Your task to perform on an android device: turn off airplane mode Image 0: 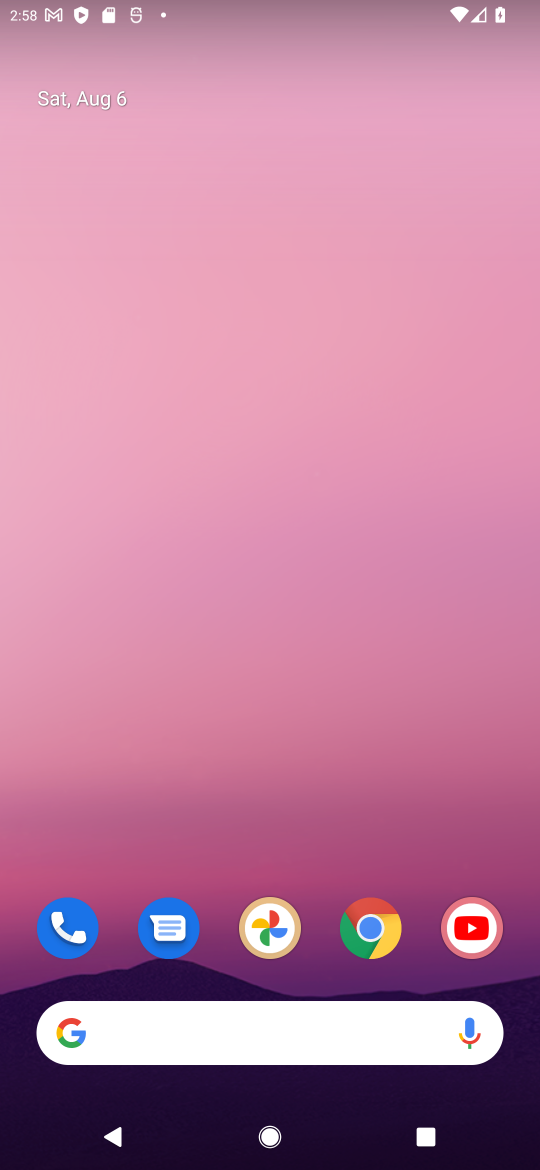
Step 0: drag from (216, 941) to (17, 137)
Your task to perform on an android device: turn off airplane mode Image 1: 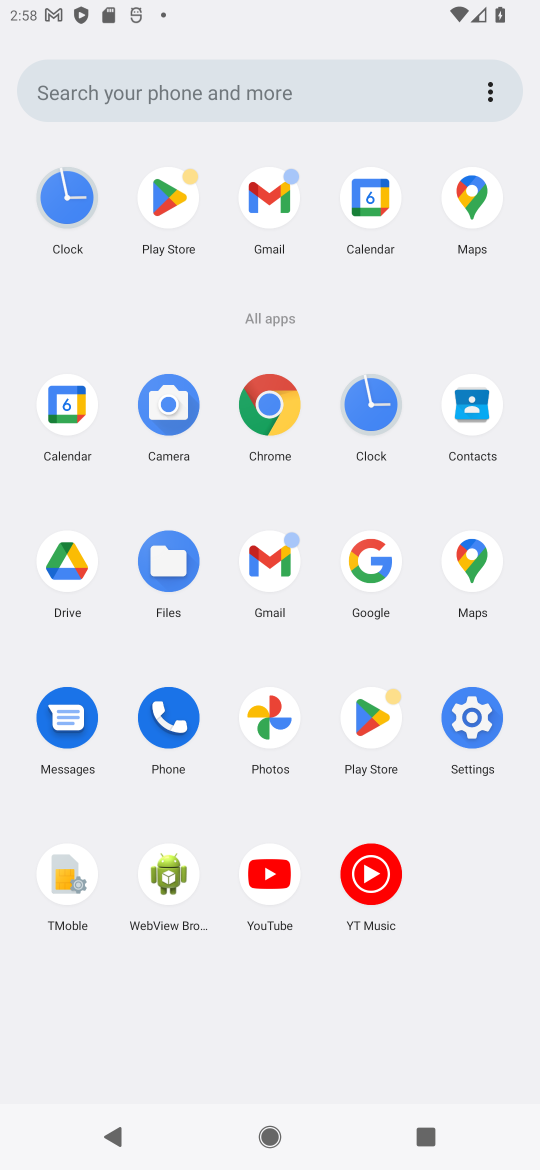
Step 1: click (481, 703)
Your task to perform on an android device: turn off airplane mode Image 2: 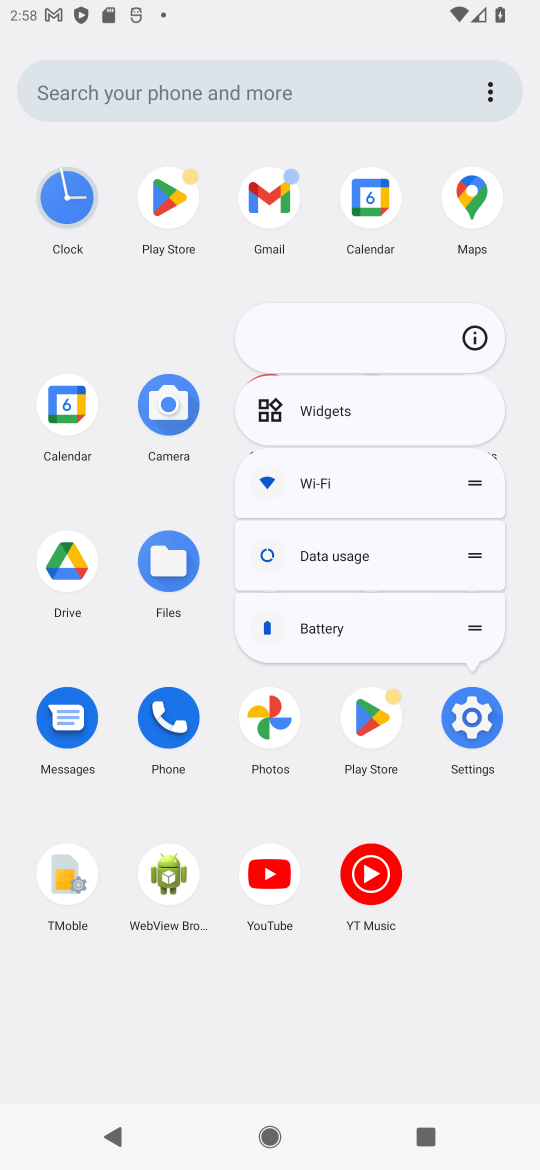
Step 2: click (478, 343)
Your task to perform on an android device: turn off airplane mode Image 3: 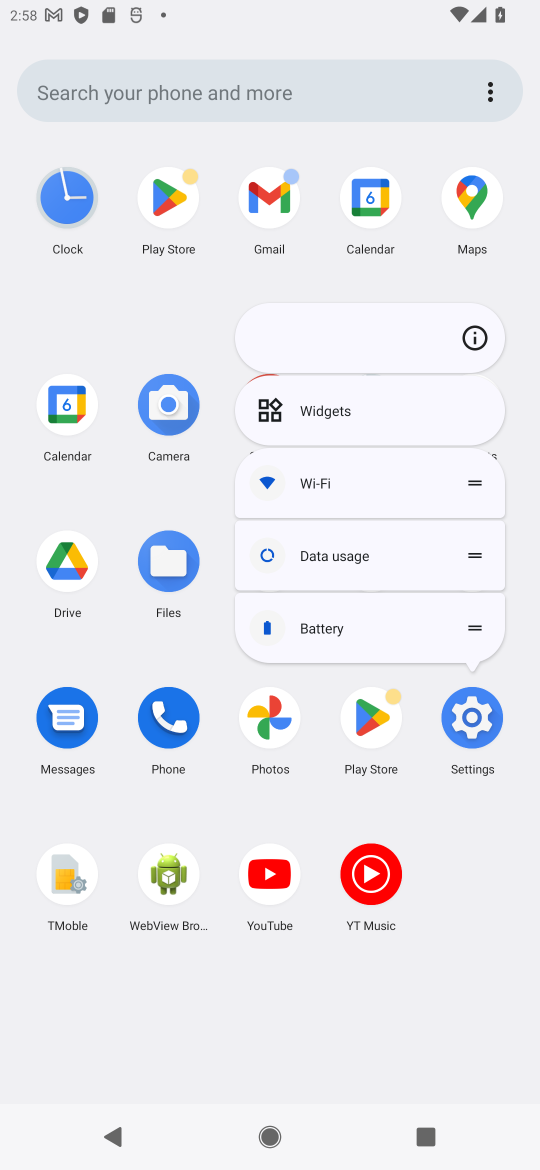
Step 3: click (482, 334)
Your task to perform on an android device: turn off airplane mode Image 4: 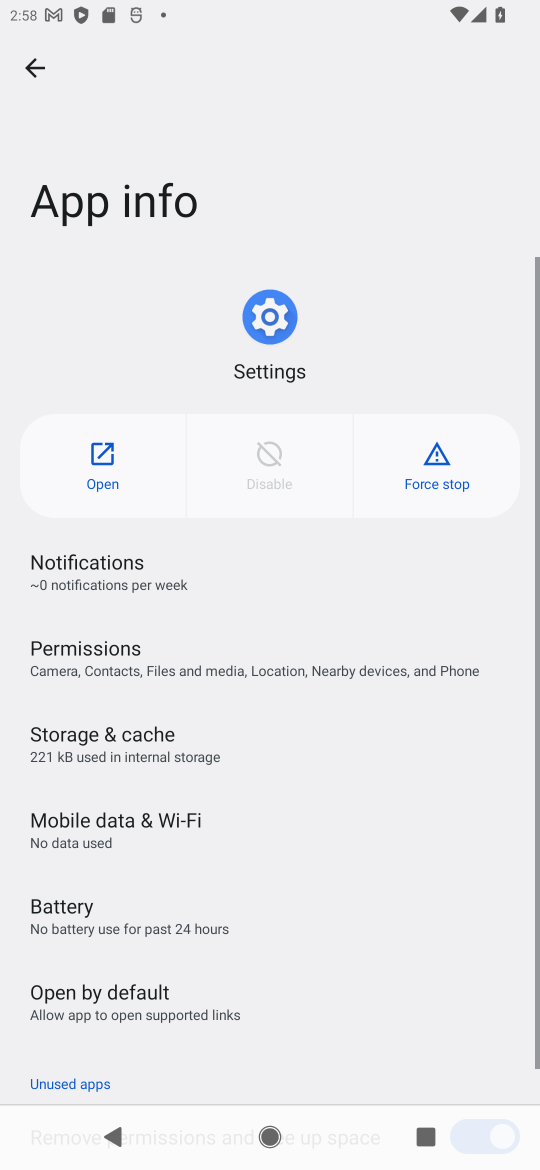
Step 4: click (91, 467)
Your task to perform on an android device: turn off airplane mode Image 5: 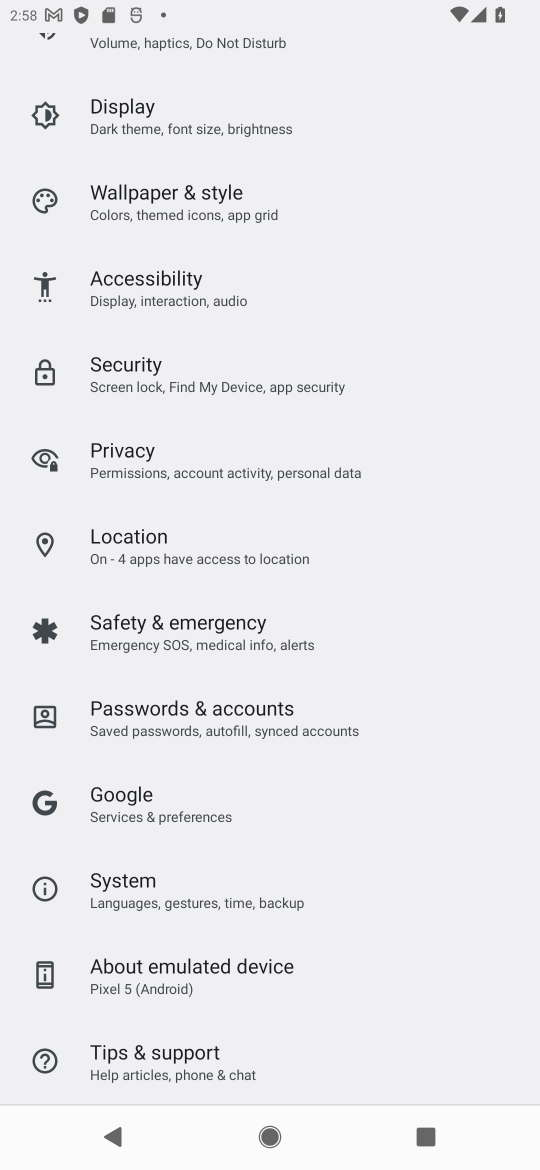
Step 5: drag from (324, 172) to (322, 1053)
Your task to perform on an android device: turn off airplane mode Image 6: 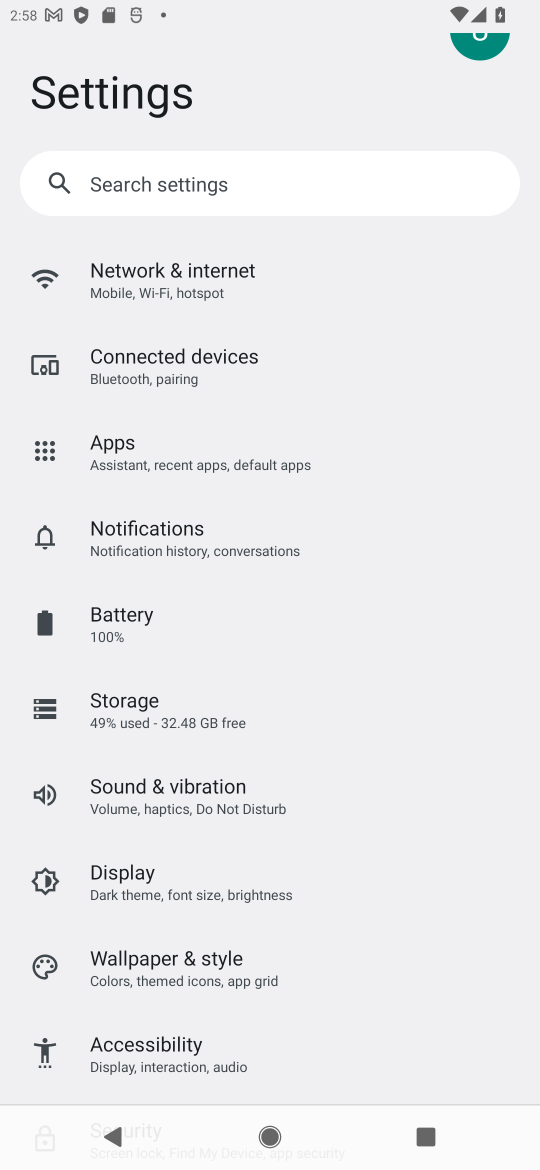
Step 6: click (234, 291)
Your task to perform on an android device: turn off airplane mode Image 7: 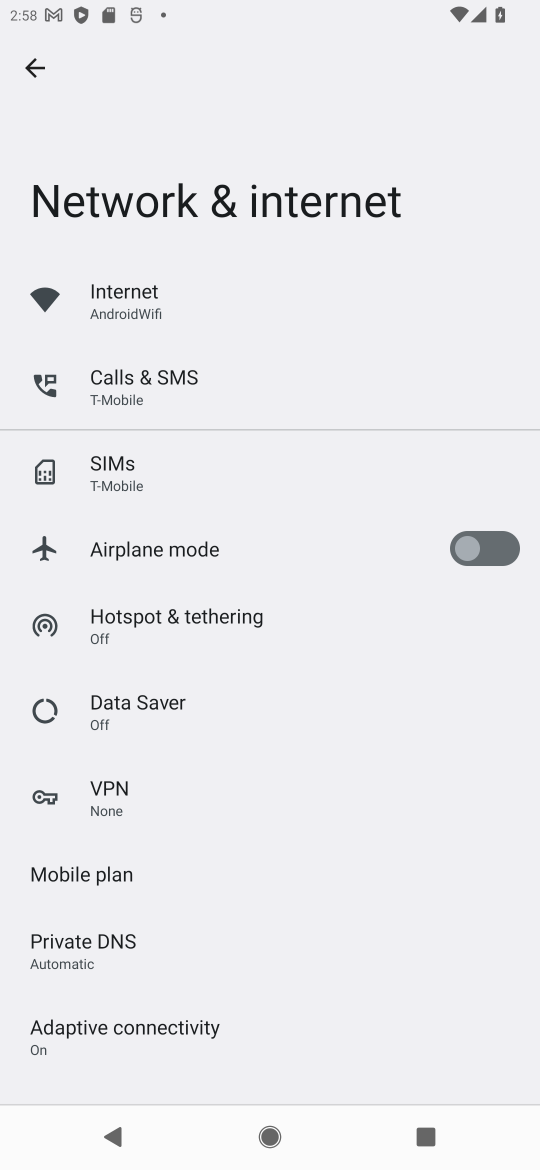
Step 7: task complete